Your task to perform on an android device: What is the recent news? Image 0: 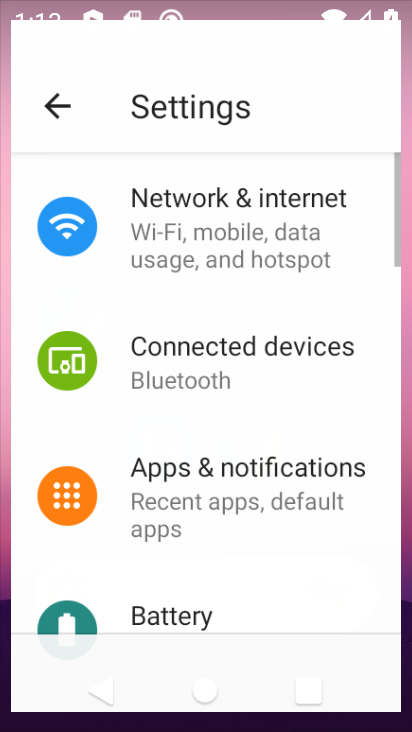
Step 0: drag from (204, 531) to (194, 119)
Your task to perform on an android device: What is the recent news? Image 1: 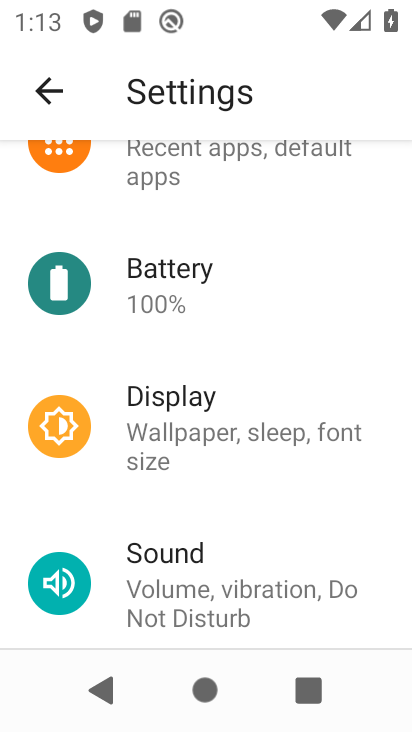
Step 1: task complete